Your task to perform on an android device: toggle data saver in the chrome app Image 0: 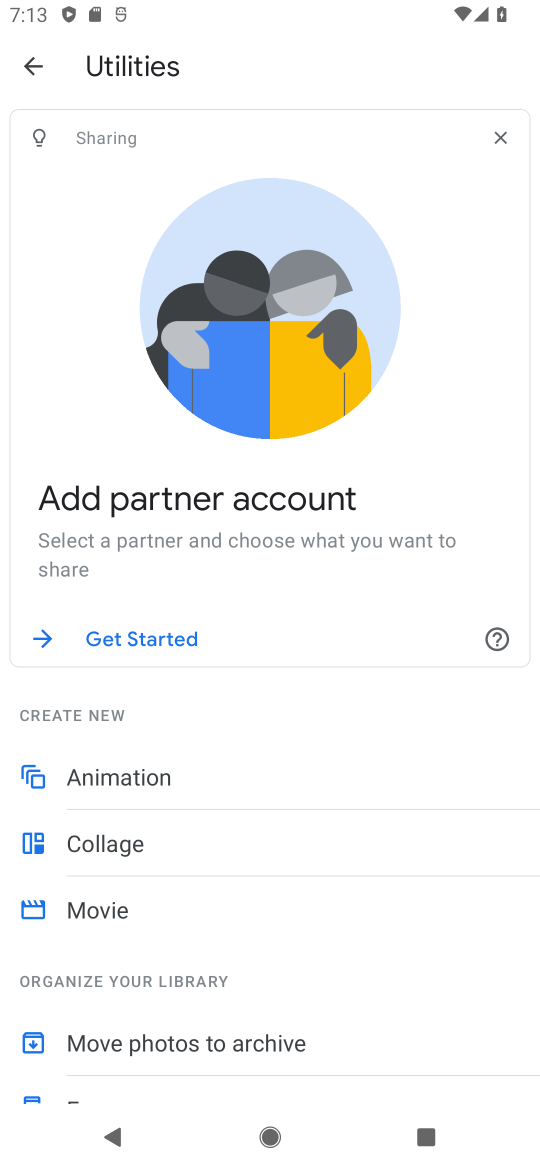
Step 0: press home button
Your task to perform on an android device: toggle data saver in the chrome app Image 1: 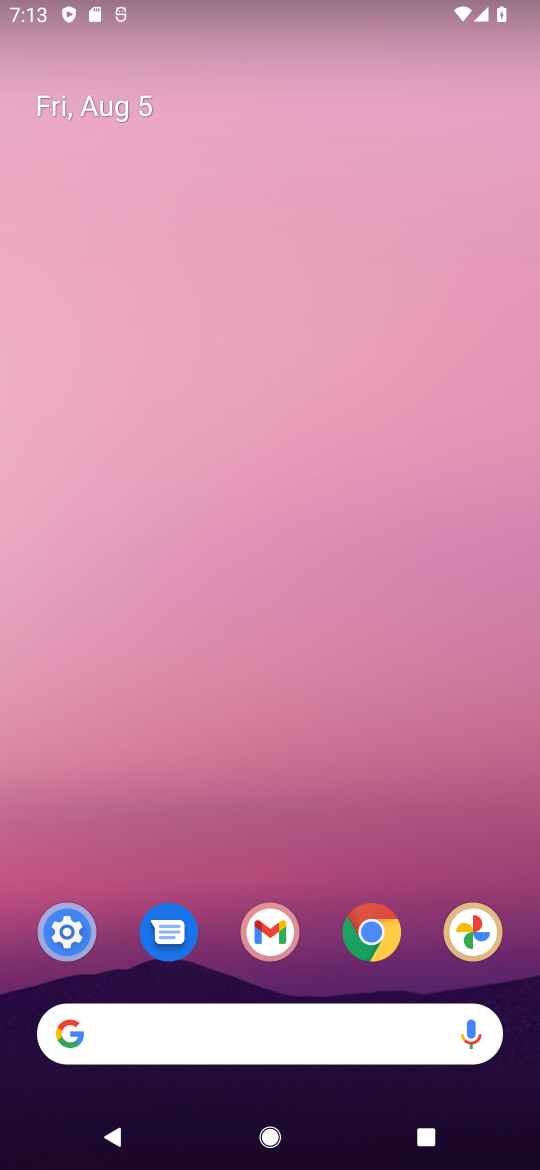
Step 1: drag from (311, 846) to (325, 145)
Your task to perform on an android device: toggle data saver in the chrome app Image 2: 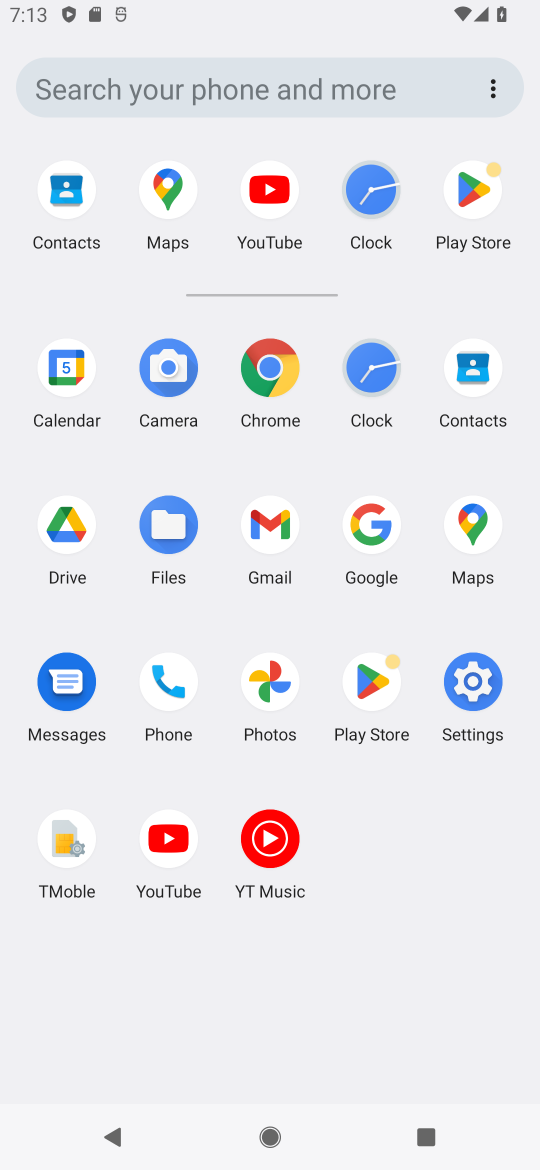
Step 2: click (275, 359)
Your task to perform on an android device: toggle data saver in the chrome app Image 3: 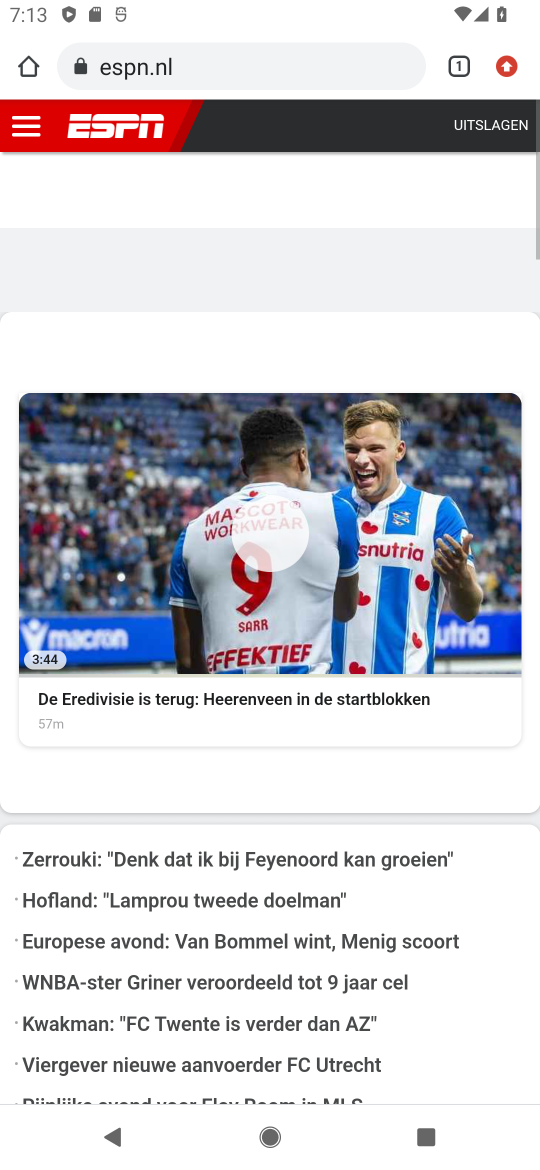
Step 3: drag from (527, 57) to (370, 880)
Your task to perform on an android device: toggle data saver in the chrome app Image 4: 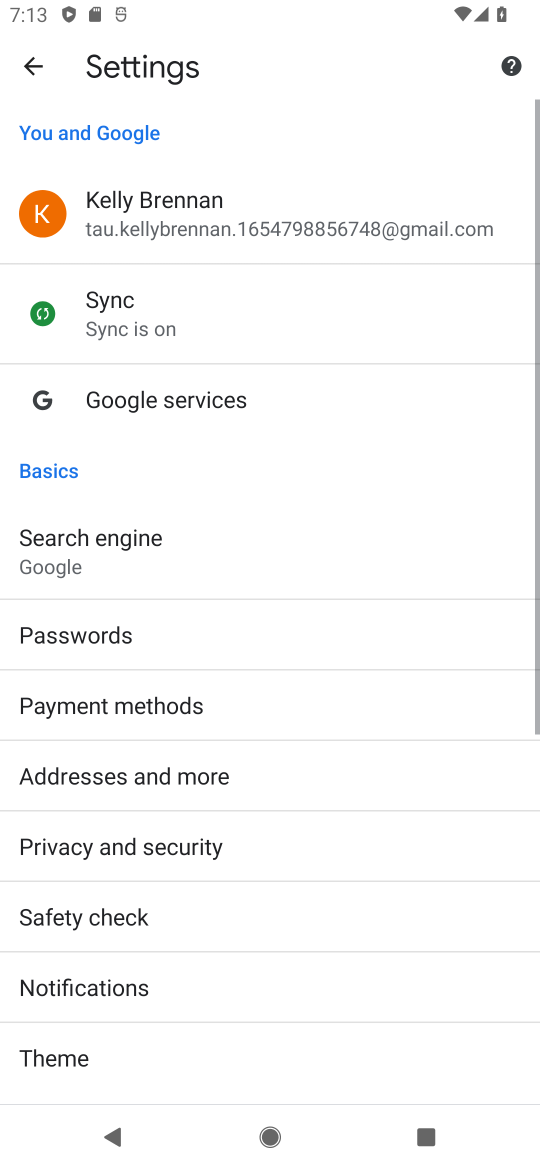
Step 4: drag from (269, 979) to (284, 250)
Your task to perform on an android device: toggle data saver in the chrome app Image 5: 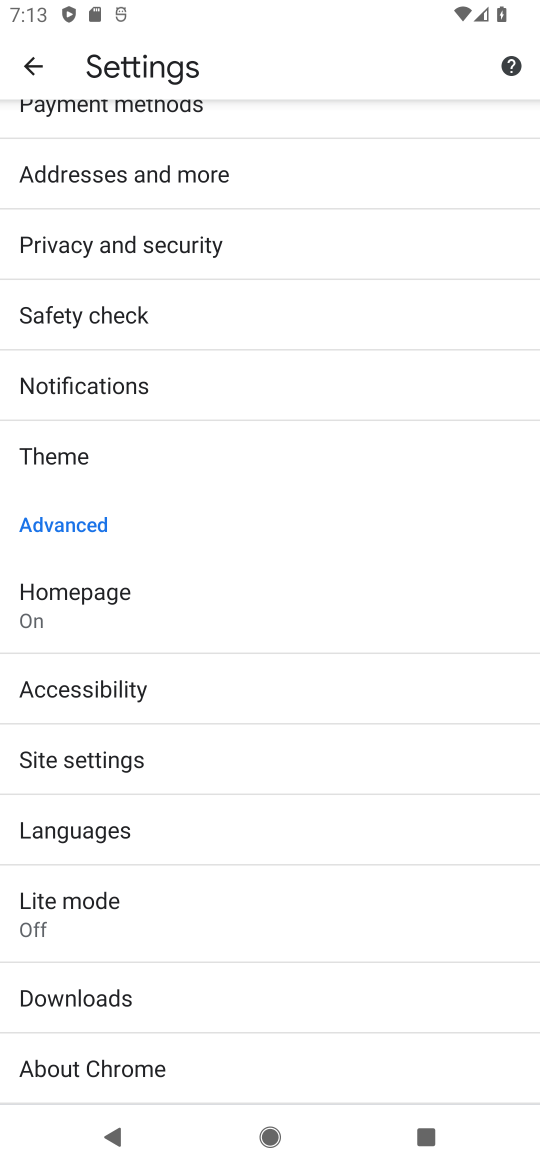
Step 5: click (140, 908)
Your task to perform on an android device: toggle data saver in the chrome app Image 6: 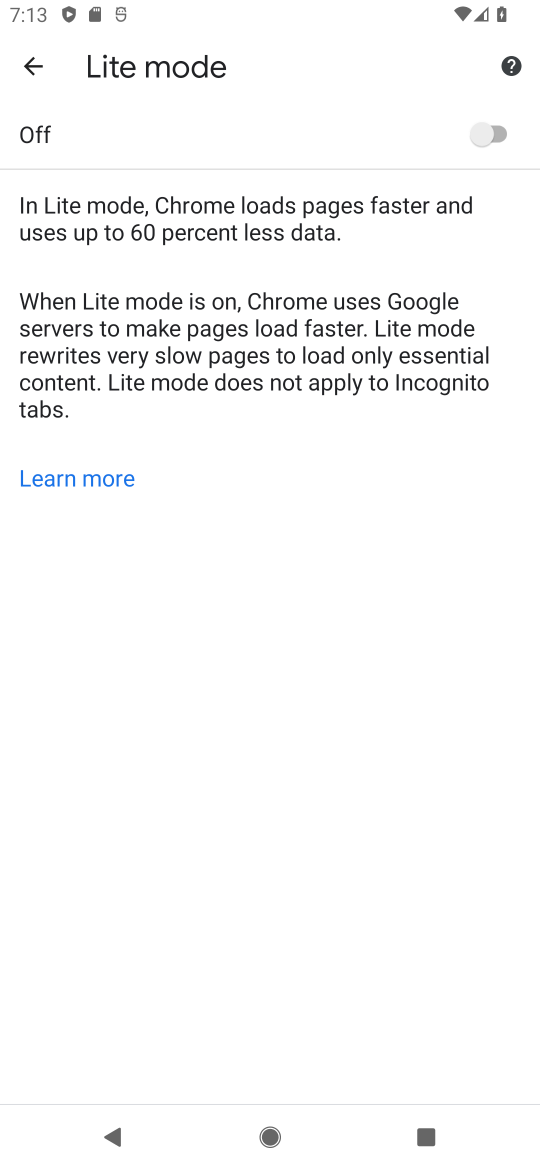
Step 6: click (495, 133)
Your task to perform on an android device: toggle data saver in the chrome app Image 7: 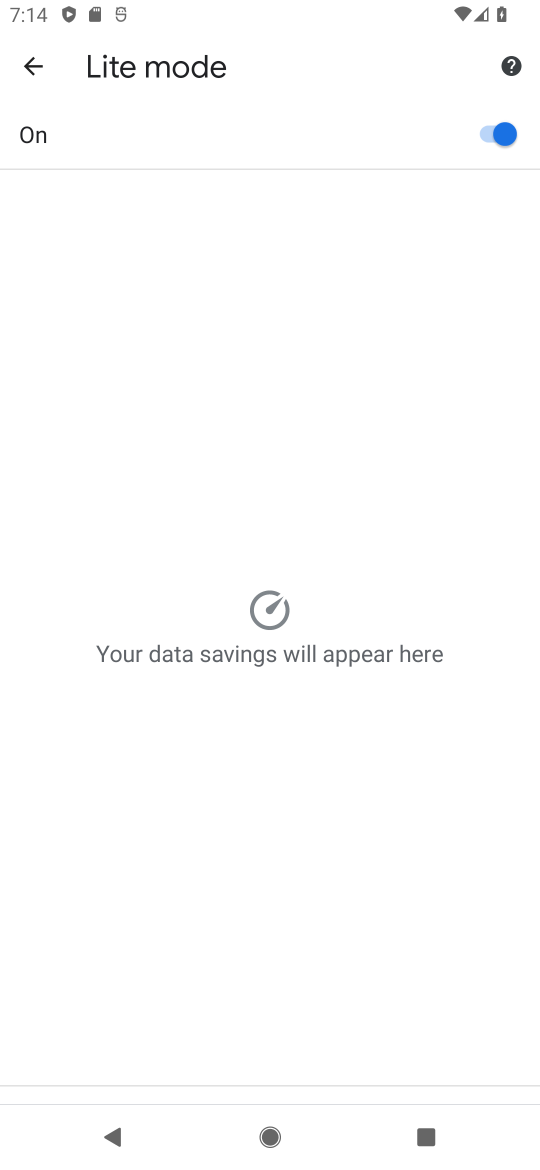
Step 7: task complete